Your task to perform on an android device: open wifi settings Image 0: 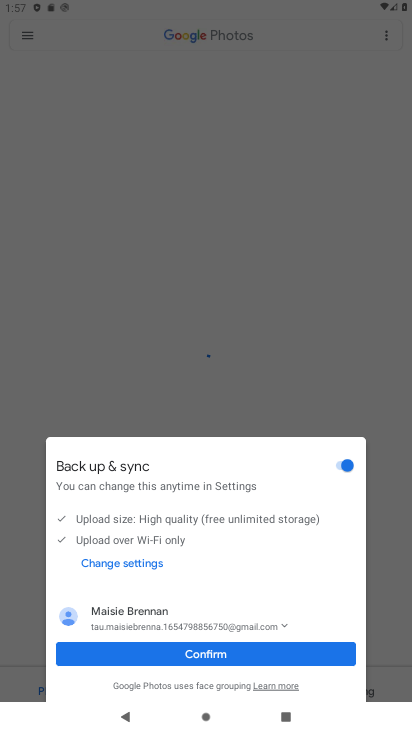
Step 0: press home button
Your task to perform on an android device: open wifi settings Image 1: 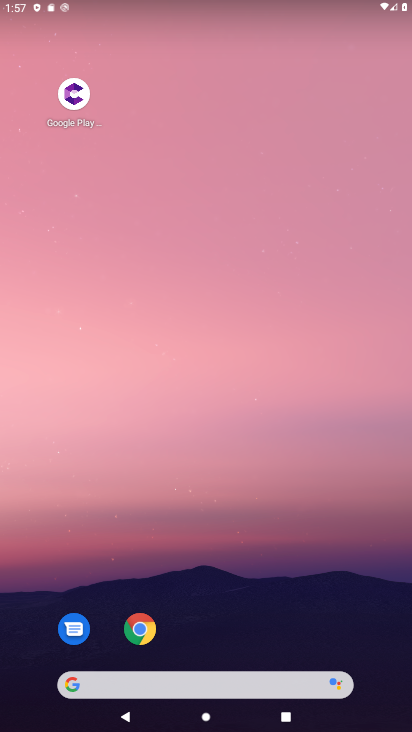
Step 1: drag from (47, 684) to (278, 35)
Your task to perform on an android device: open wifi settings Image 2: 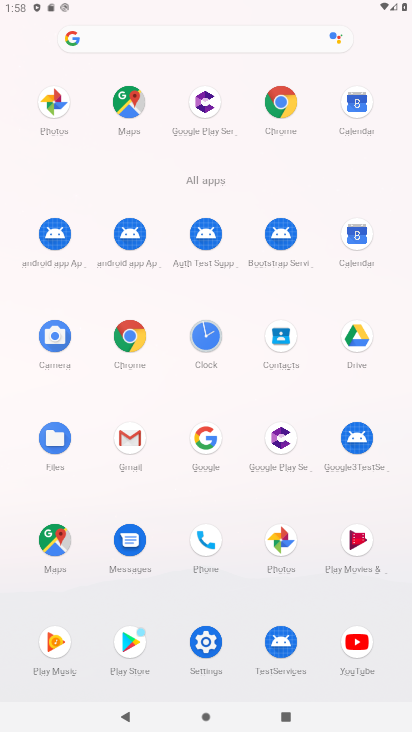
Step 2: click (194, 638)
Your task to perform on an android device: open wifi settings Image 3: 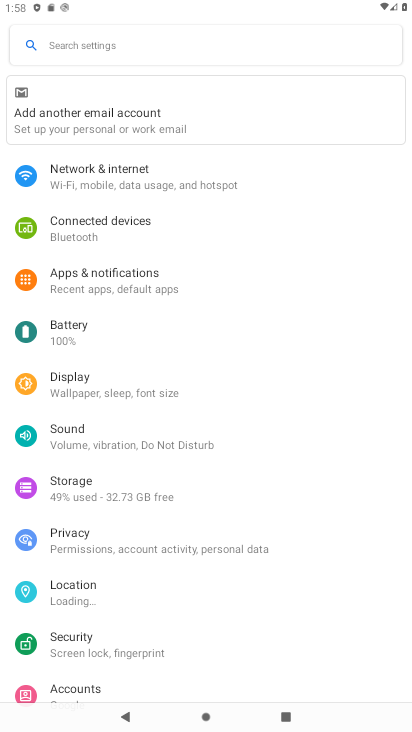
Step 3: click (97, 165)
Your task to perform on an android device: open wifi settings Image 4: 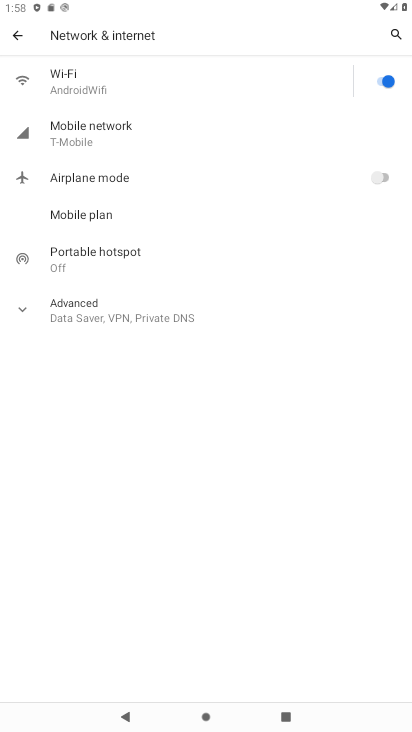
Step 4: click (56, 77)
Your task to perform on an android device: open wifi settings Image 5: 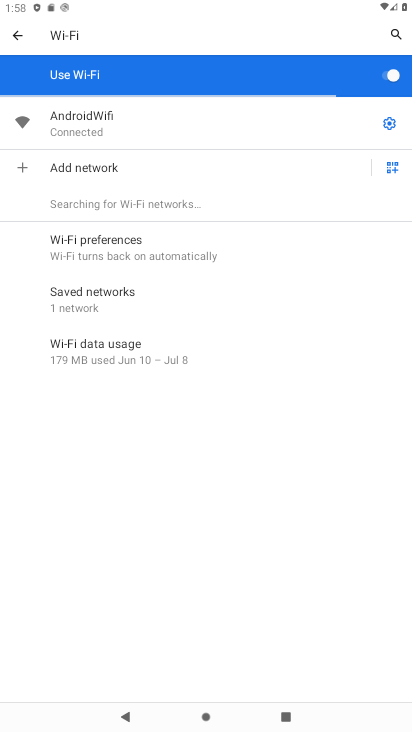
Step 5: task complete